Your task to perform on an android device: all mails in gmail Image 0: 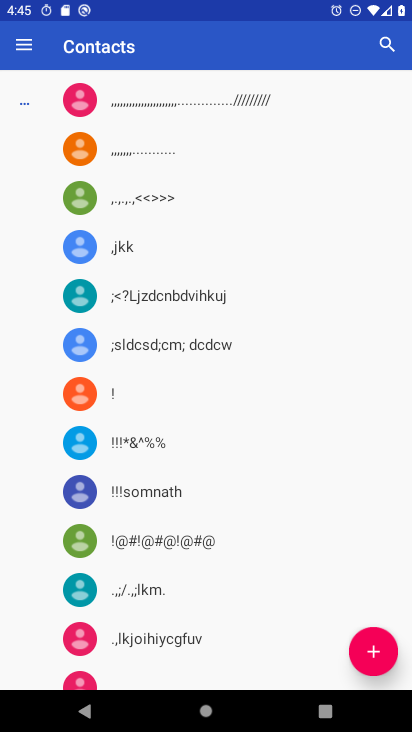
Step 0: press home button
Your task to perform on an android device: all mails in gmail Image 1: 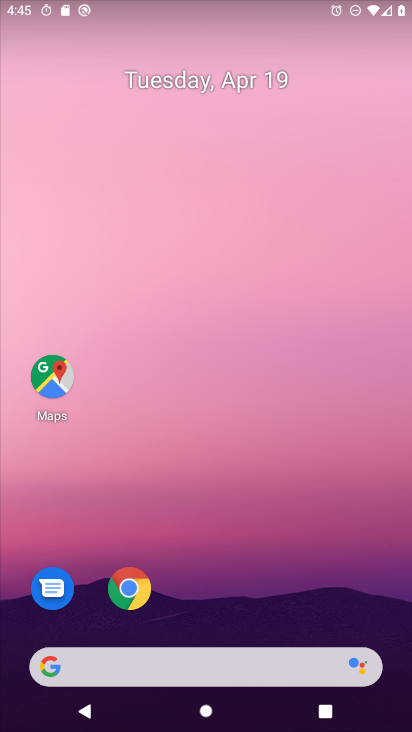
Step 1: drag from (249, 473) to (243, 32)
Your task to perform on an android device: all mails in gmail Image 2: 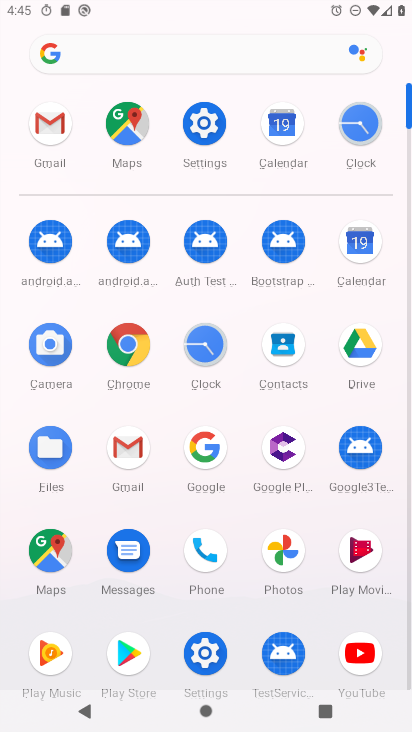
Step 2: click (123, 456)
Your task to perform on an android device: all mails in gmail Image 3: 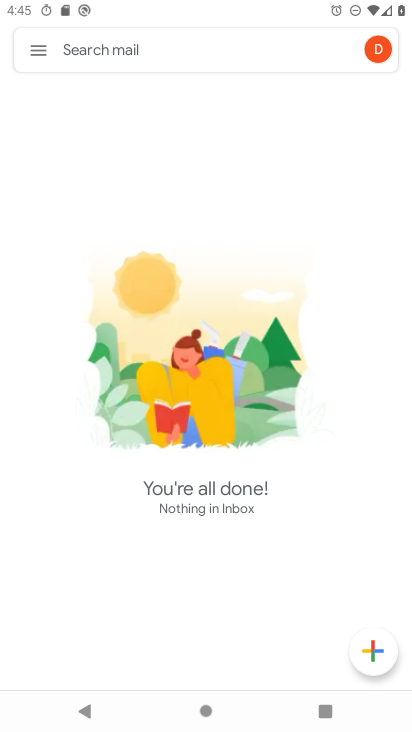
Step 3: click (42, 44)
Your task to perform on an android device: all mails in gmail Image 4: 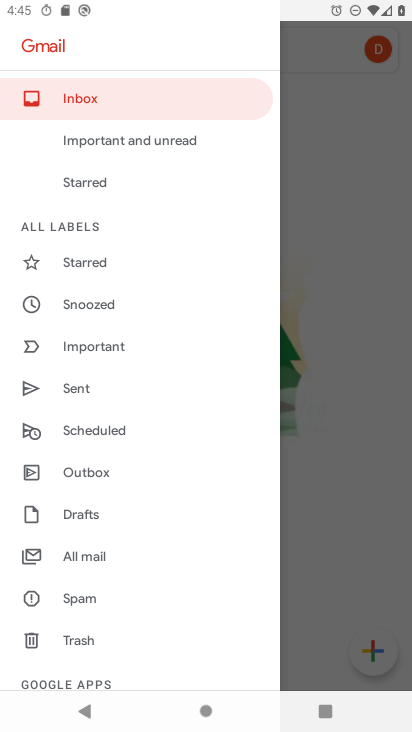
Step 4: click (102, 561)
Your task to perform on an android device: all mails in gmail Image 5: 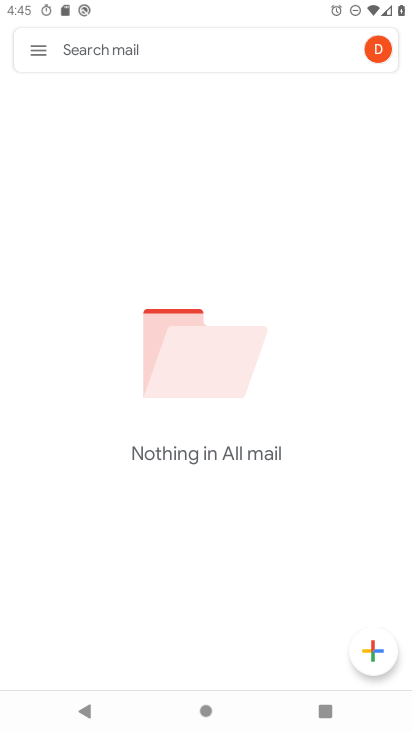
Step 5: task complete